Your task to perform on an android device: Open Android settings Image 0: 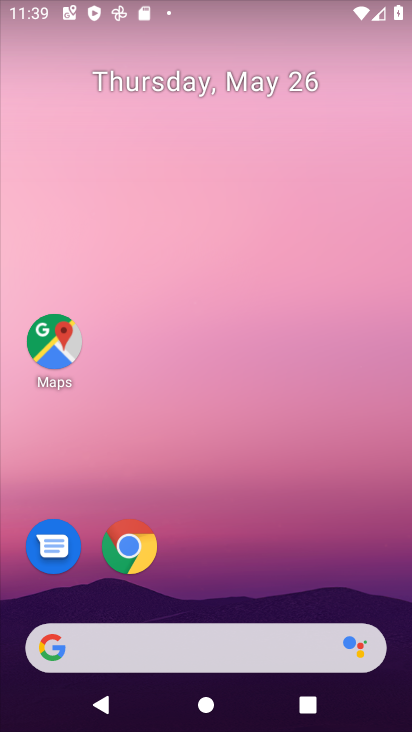
Step 0: drag from (197, 572) to (207, 35)
Your task to perform on an android device: Open Android settings Image 1: 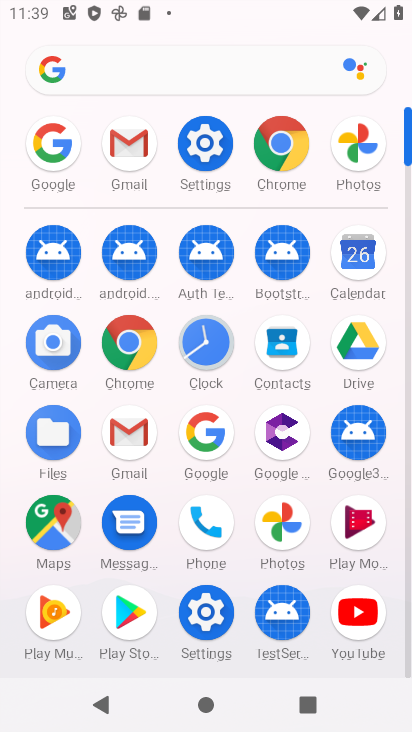
Step 1: click (198, 134)
Your task to perform on an android device: Open Android settings Image 2: 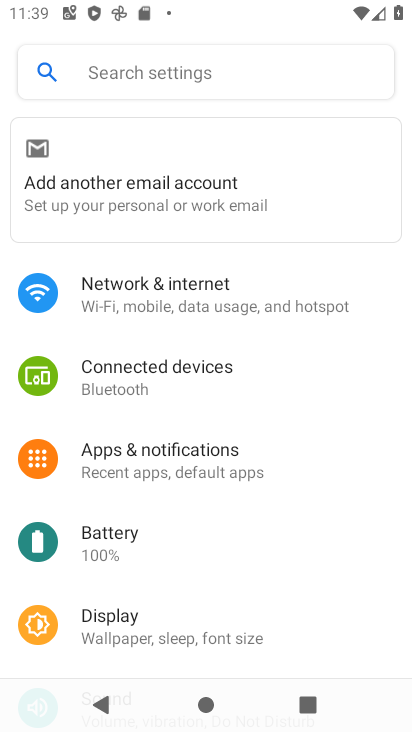
Step 2: task complete